Your task to perform on an android device: Open maps Image 0: 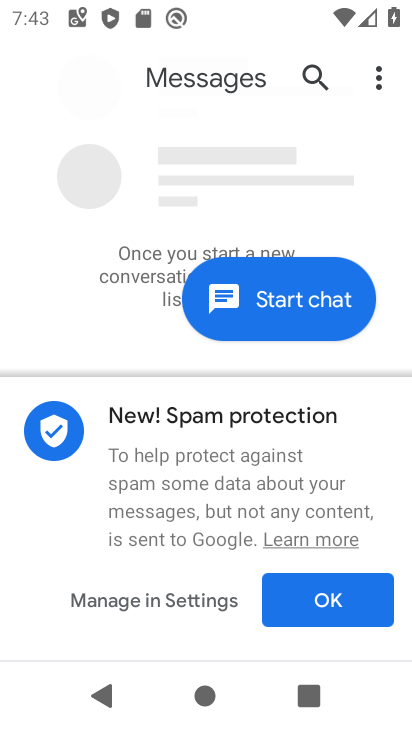
Step 0: click (323, 601)
Your task to perform on an android device: Open maps Image 1: 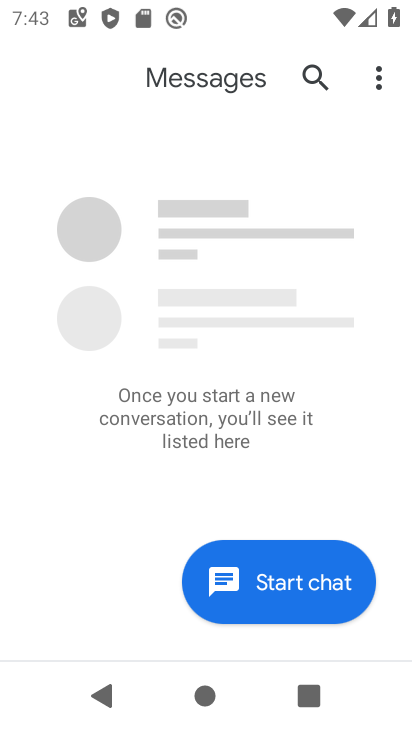
Step 1: press home button
Your task to perform on an android device: Open maps Image 2: 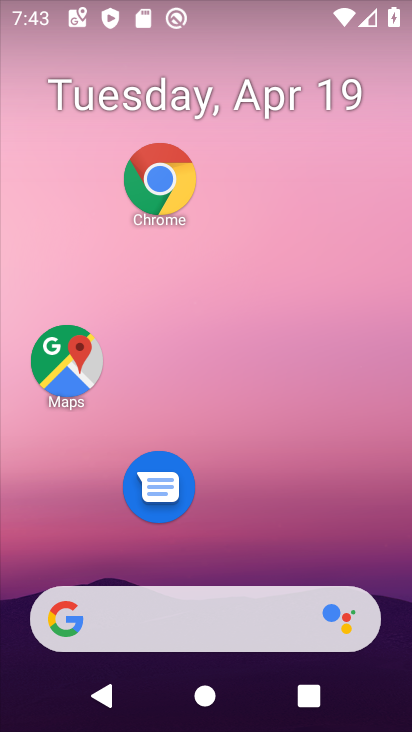
Step 2: click (72, 357)
Your task to perform on an android device: Open maps Image 3: 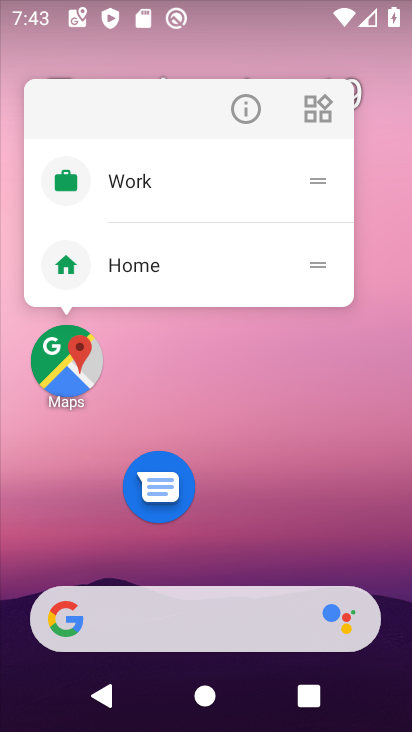
Step 3: click (38, 350)
Your task to perform on an android device: Open maps Image 4: 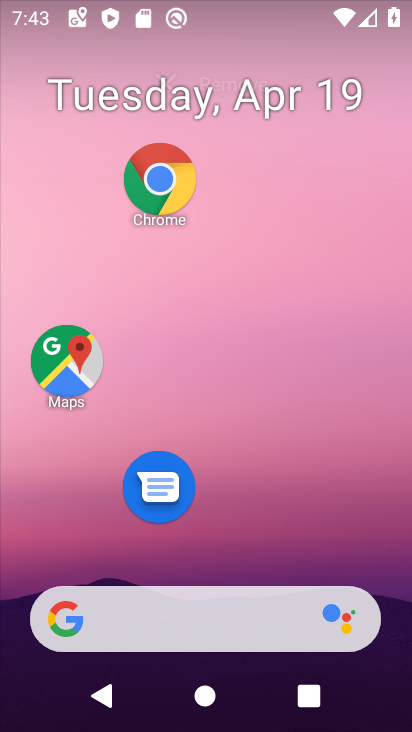
Step 4: click (66, 352)
Your task to perform on an android device: Open maps Image 5: 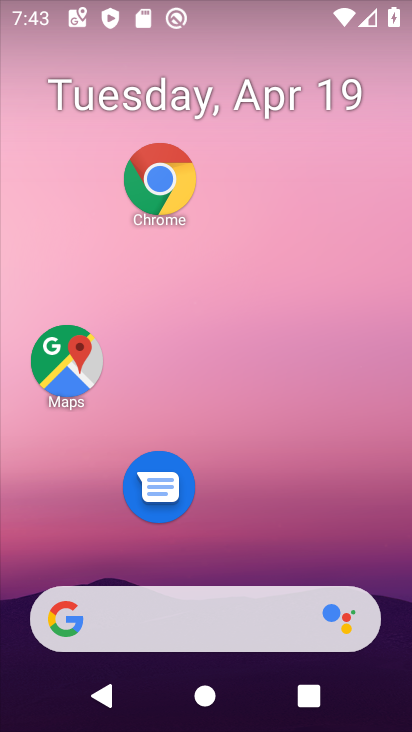
Step 5: click (66, 349)
Your task to perform on an android device: Open maps Image 6: 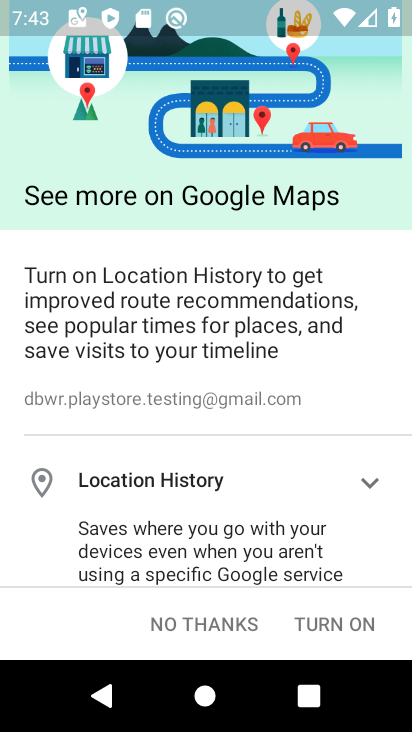
Step 6: click (218, 633)
Your task to perform on an android device: Open maps Image 7: 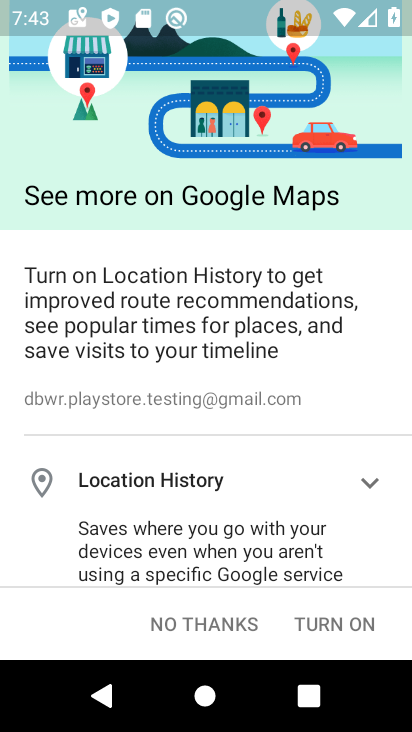
Step 7: click (218, 633)
Your task to perform on an android device: Open maps Image 8: 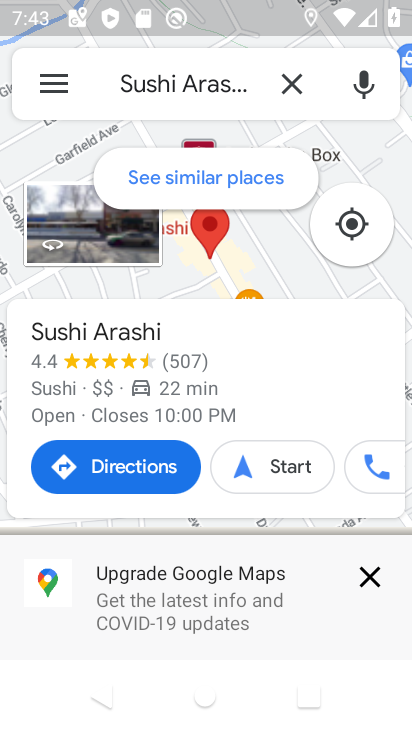
Step 8: task complete